Your task to perform on an android device: move a message to another label in the gmail app Image 0: 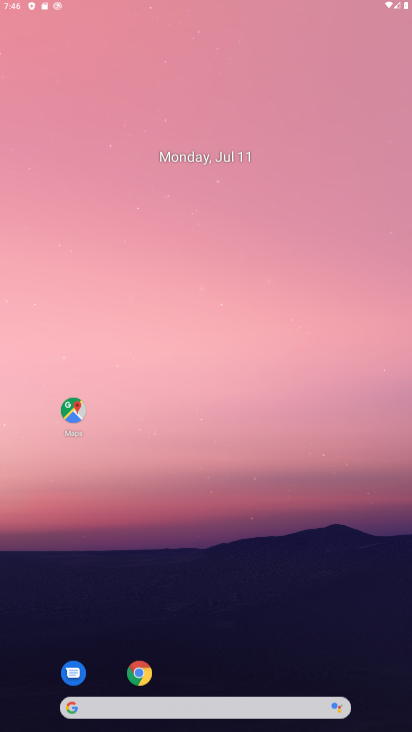
Step 0: press home button
Your task to perform on an android device: move a message to another label in the gmail app Image 1: 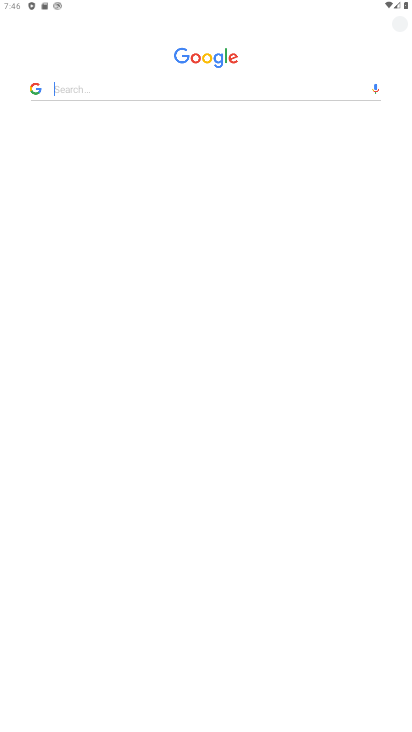
Step 1: drag from (196, 471) to (204, 27)
Your task to perform on an android device: move a message to another label in the gmail app Image 2: 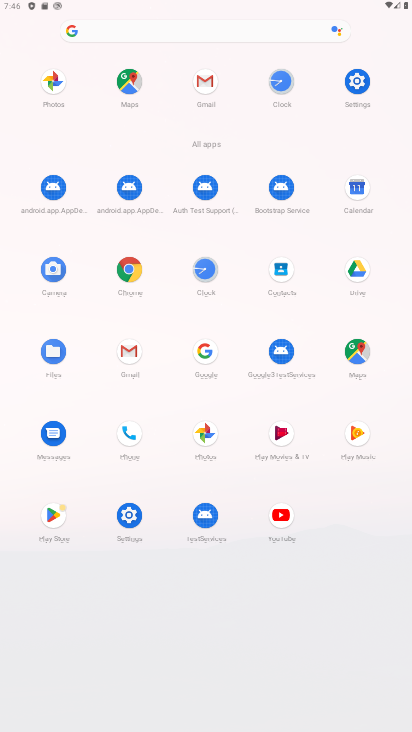
Step 2: click (129, 351)
Your task to perform on an android device: move a message to another label in the gmail app Image 3: 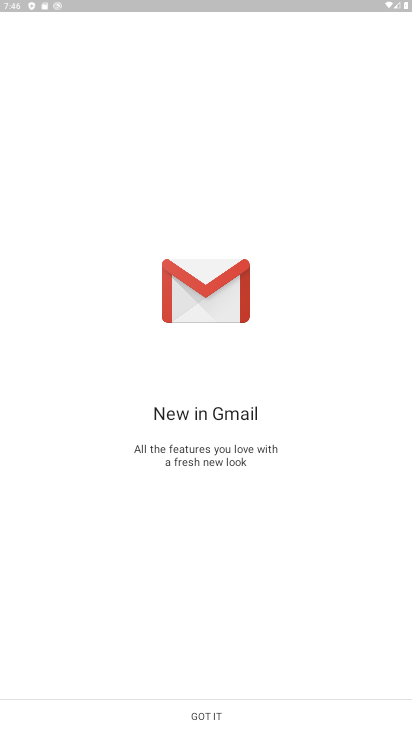
Step 3: click (207, 711)
Your task to perform on an android device: move a message to another label in the gmail app Image 4: 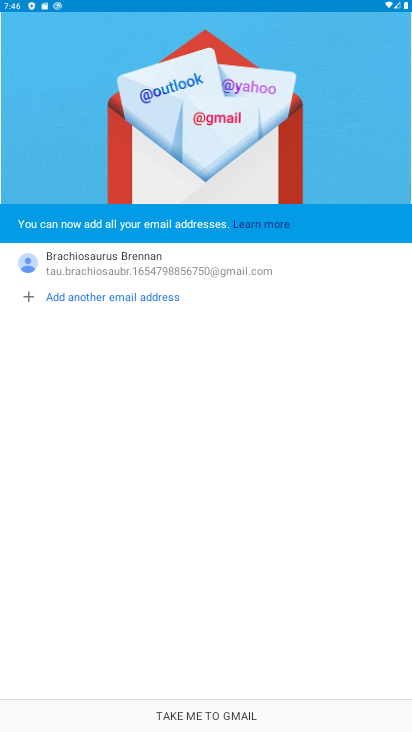
Step 4: click (207, 711)
Your task to perform on an android device: move a message to another label in the gmail app Image 5: 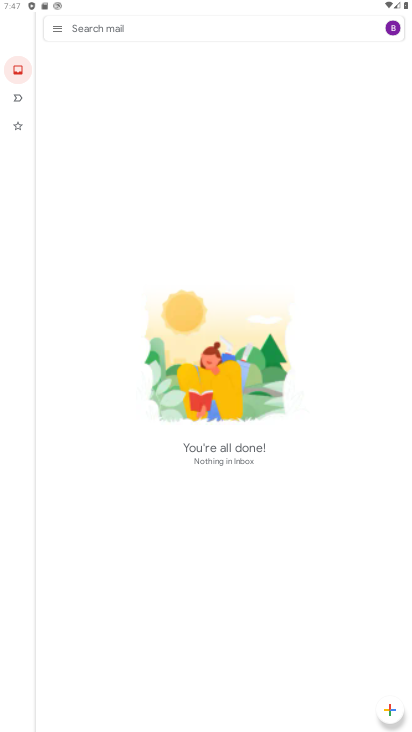
Step 5: task complete